Your task to perform on an android device: toggle notifications settings in the gmail app Image 0: 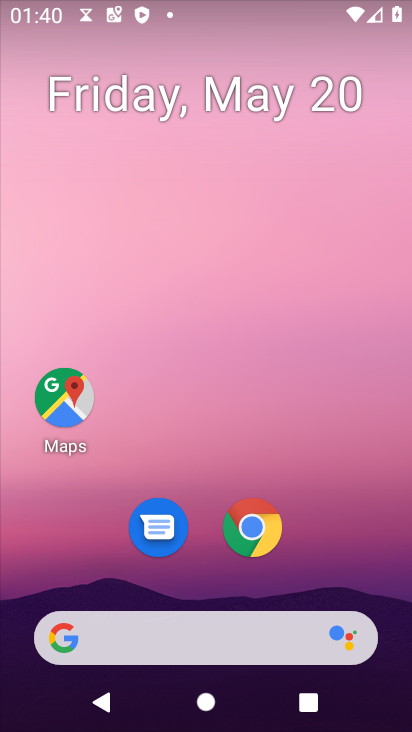
Step 0: press home button
Your task to perform on an android device: toggle notifications settings in the gmail app Image 1: 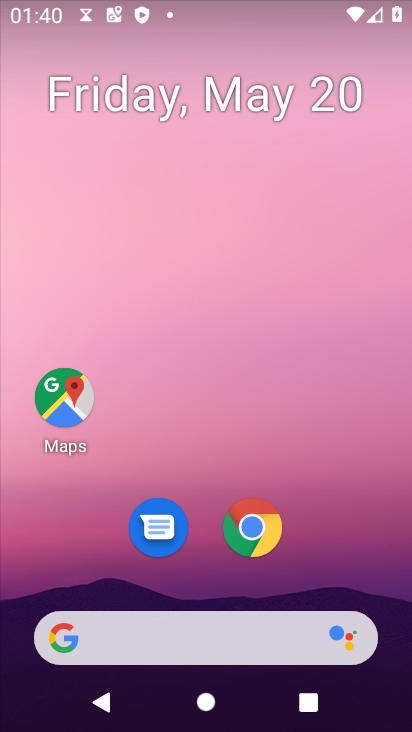
Step 1: drag from (150, 635) to (280, 203)
Your task to perform on an android device: toggle notifications settings in the gmail app Image 2: 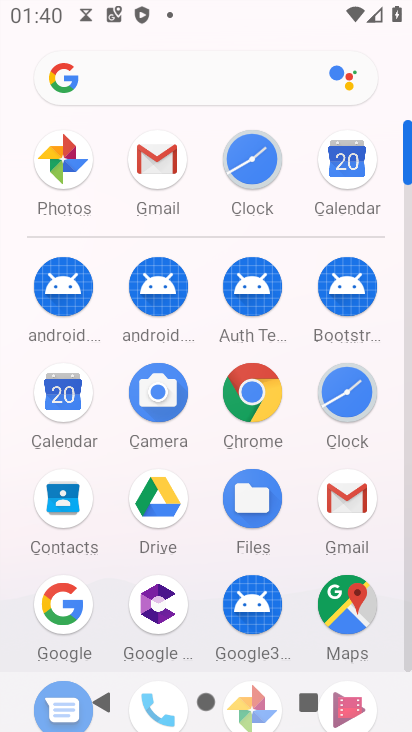
Step 2: click (155, 175)
Your task to perform on an android device: toggle notifications settings in the gmail app Image 3: 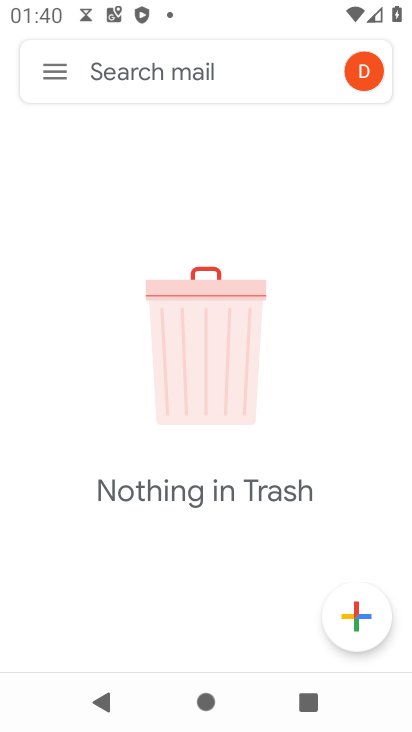
Step 3: click (51, 64)
Your task to perform on an android device: toggle notifications settings in the gmail app Image 4: 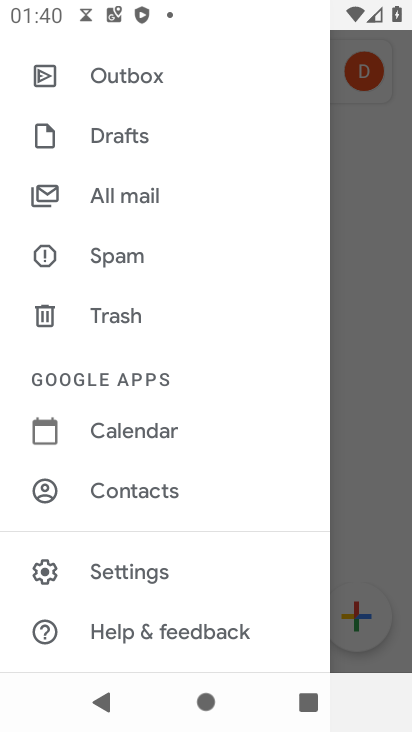
Step 4: click (131, 565)
Your task to perform on an android device: toggle notifications settings in the gmail app Image 5: 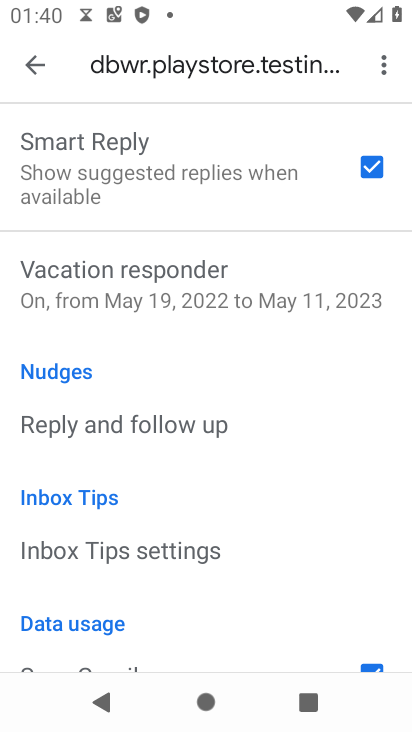
Step 5: drag from (284, 137) to (193, 576)
Your task to perform on an android device: toggle notifications settings in the gmail app Image 6: 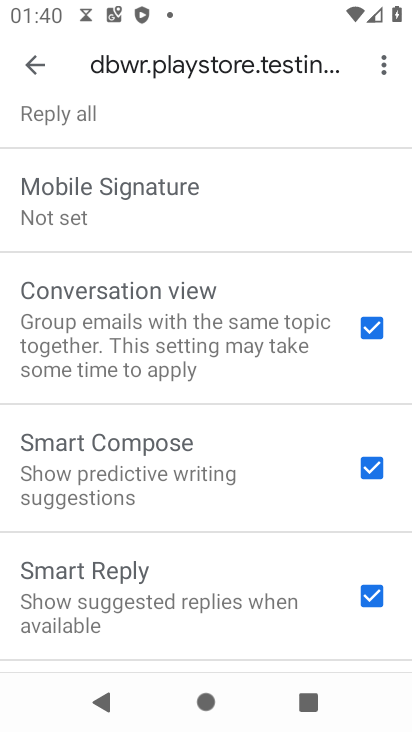
Step 6: drag from (292, 176) to (214, 525)
Your task to perform on an android device: toggle notifications settings in the gmail app Image 7: 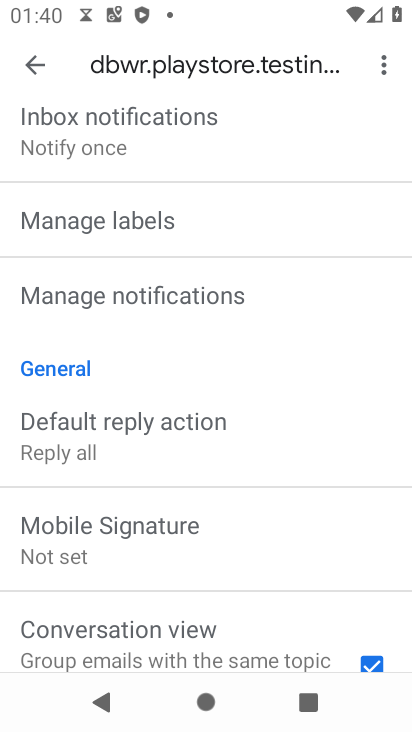
Step 7: click (255, 412)
Your task to perform on an android device: toggle notifications settings in the gmail app Image 8: 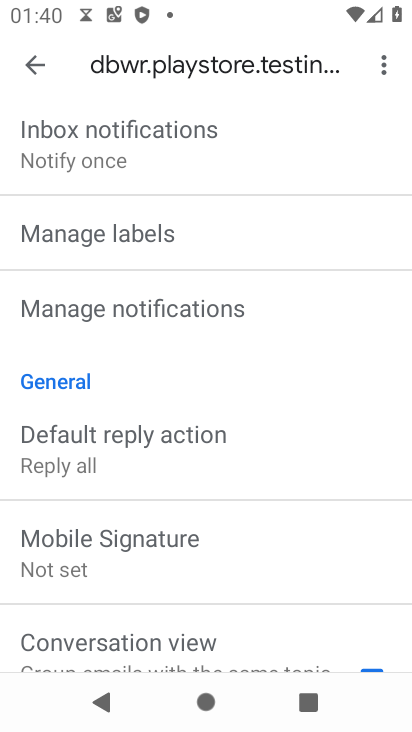
Step 8: drag from (242, 154) to (180, 532)
Your task to perform on an android device: toggle notifications settings in the gmail app Image 9: 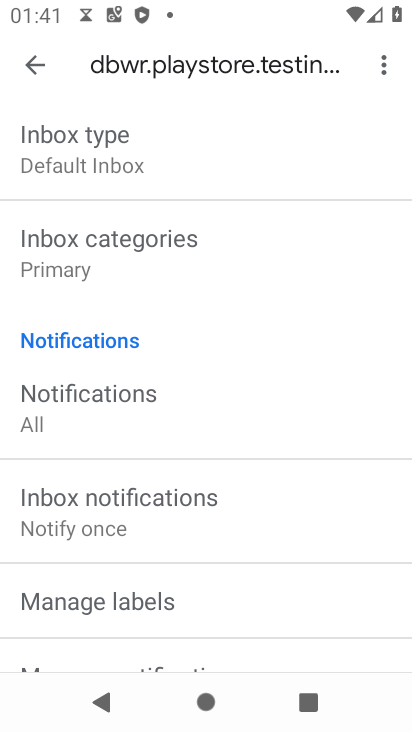
Step 9: click (105, 418)
Your task to perform on an android device: toggle notifications settings in the gmail app Image 10: 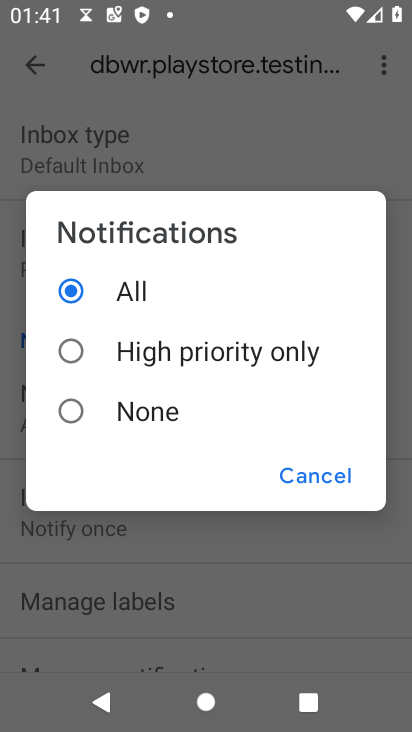
Step 10: click (81, 409)
Your task to perform on an android device: toggle notifications settings in the gmail app Image 11: 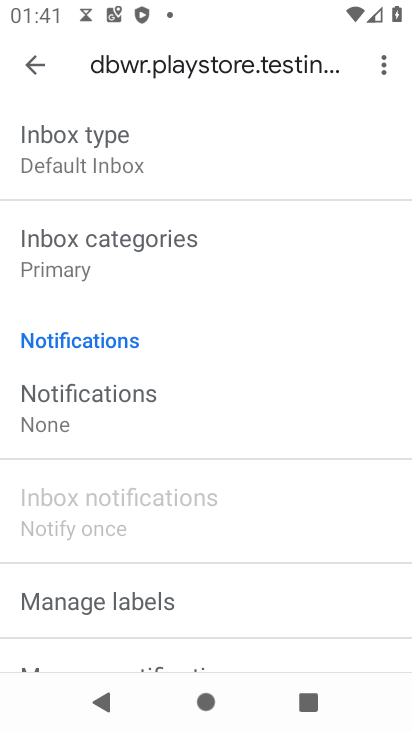
Step 11: task complete